Your task to perform on an android device: Open internet settings Image 0: 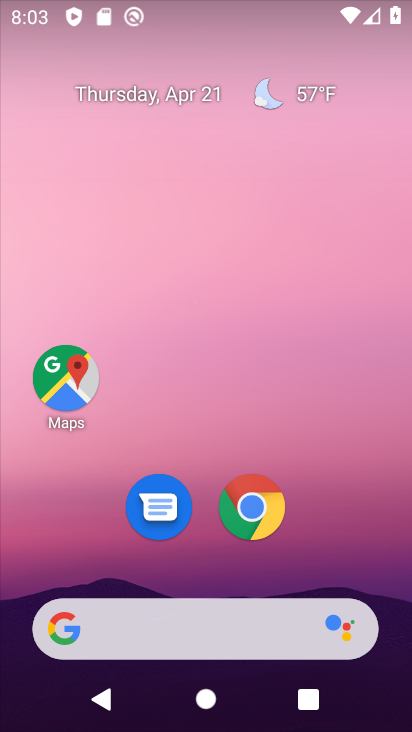
Step 0: drag from (355, 540) to (313, 33)
Your task to perform on an android device: Open internet settings Image 1: 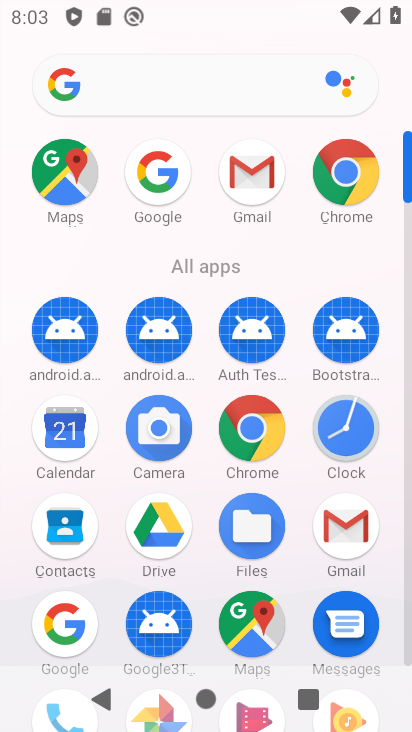
Step 1: click (406, 654)
Your task to perform on an android device: Open internet settings Image 2: 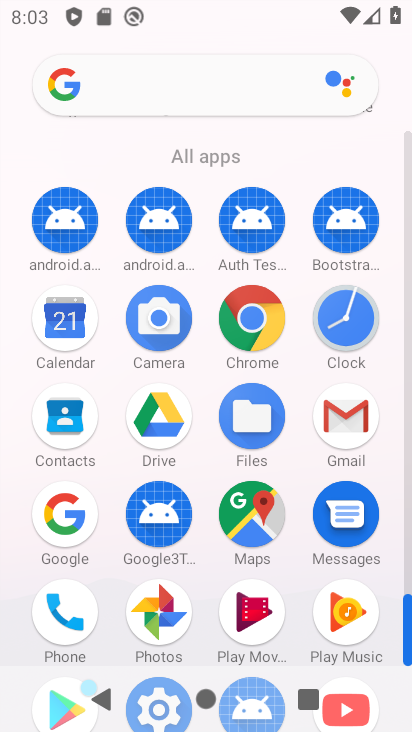
Step 2: click (159, 693)
Your task to perform on an android device: Open internet settings Image 3: 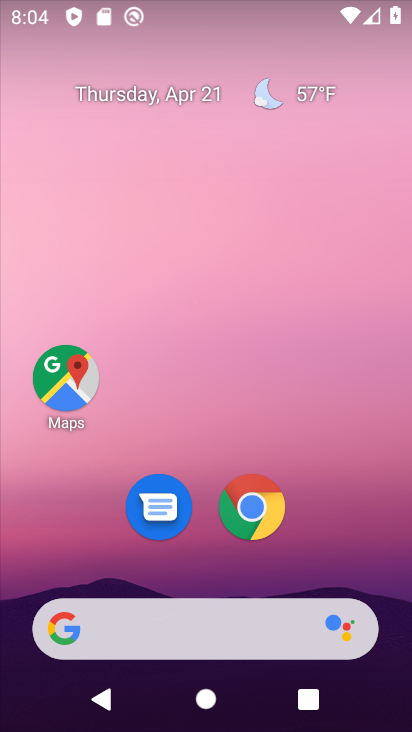
Step 3: drag from (337, 541) to (353, 10)
Your task to perform on an android device: Open internet settings Image 4: 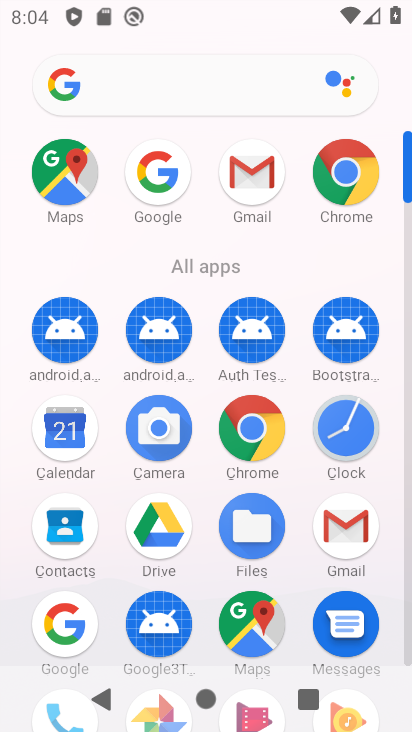
Step 4: drag from (404, 182) to (399, 455)
Your task to perform on an android device: Open internet settings Image 5: 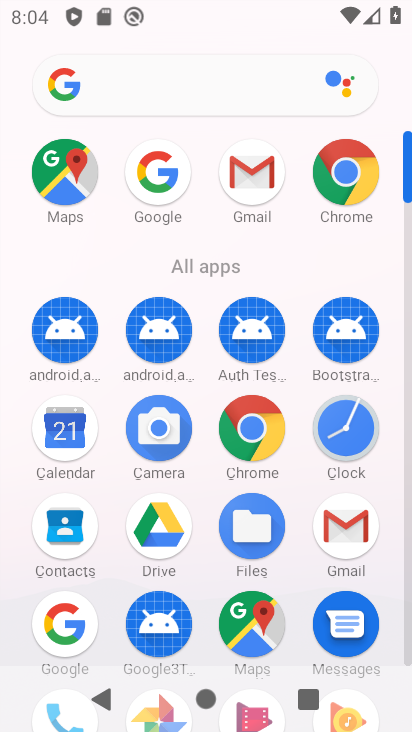
Step 5: click (406, 659)
Your task to perform on an android device: Open internet settings Image 6: 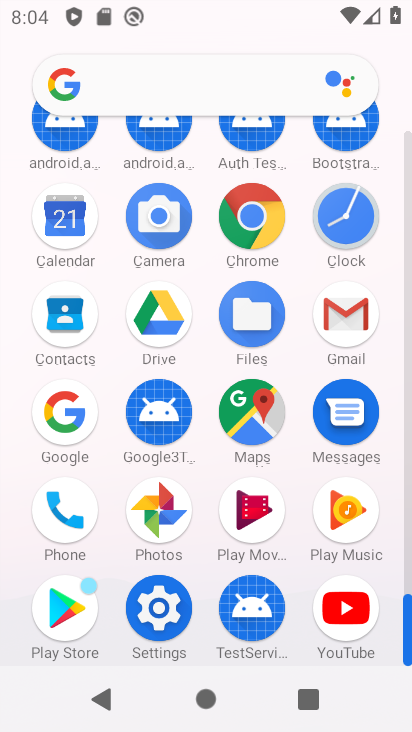
Step 6: click (162, 615)
Your task to perform on an android device: Open internet settings Image 7: 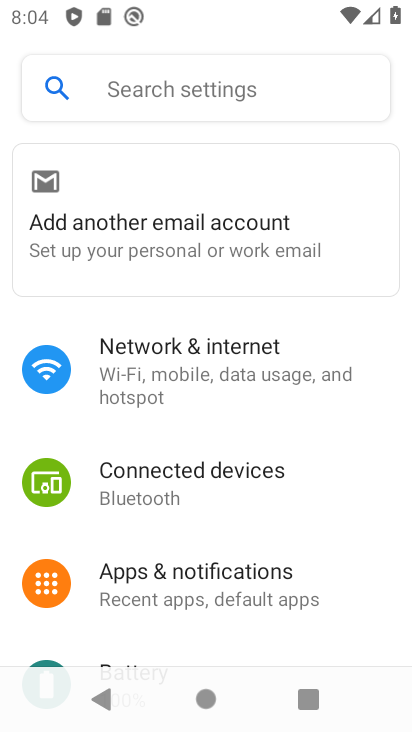
Step 7: click (93, 353)
Your task to perform on an android device: Open internet settings Image 8: 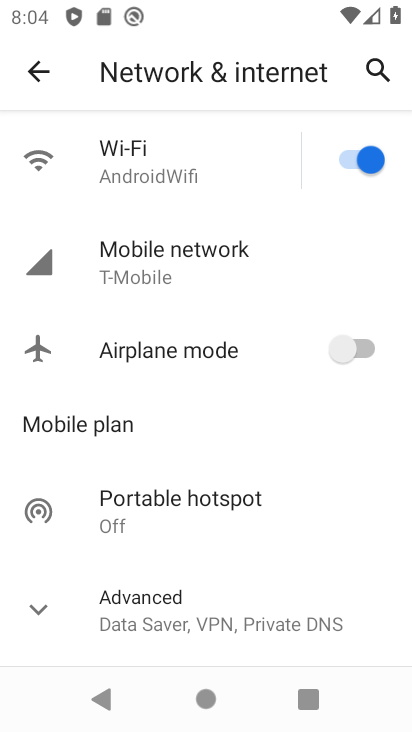
Step 8: task complete